Your task to perform on an android device: star an email in the gmail app Image 0: 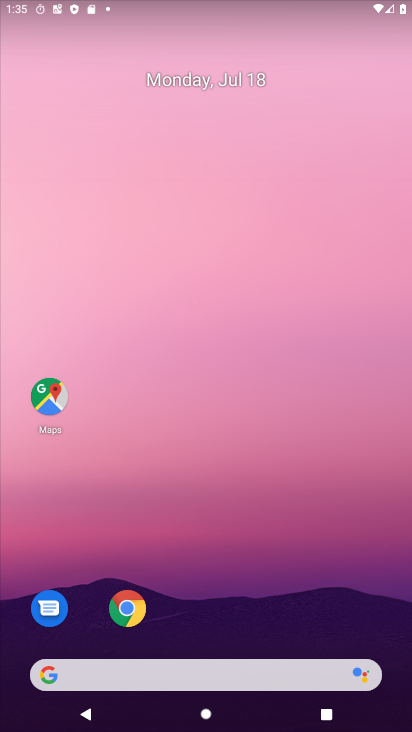
Step 0: drag from (240, 594) to (228, 91)
Your task to perform on an android device: star an email in the gmail app Image 1: 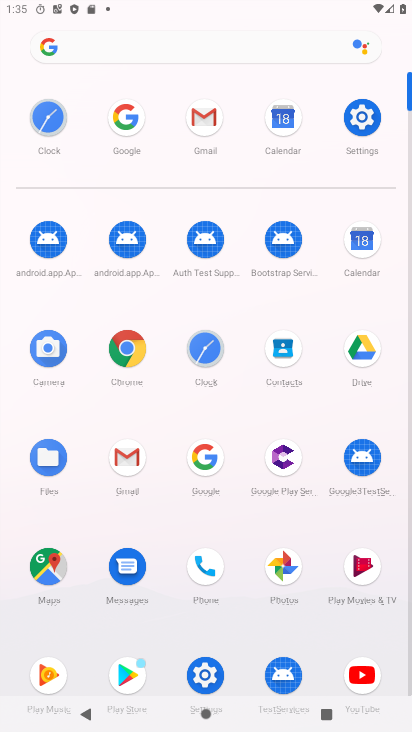
Step 1: click (126, 458)
Your task to perform on an android device: star an email in the gmail app Image 2: 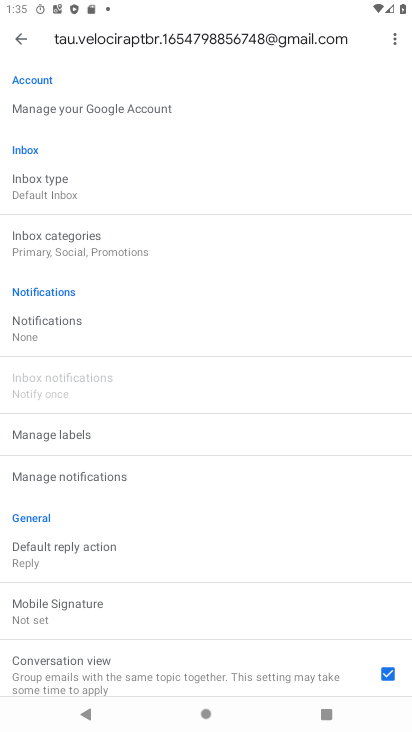
Step 2: click (26, 34)
Your task to perform on an android device: star an email in the gmail app Image 3: 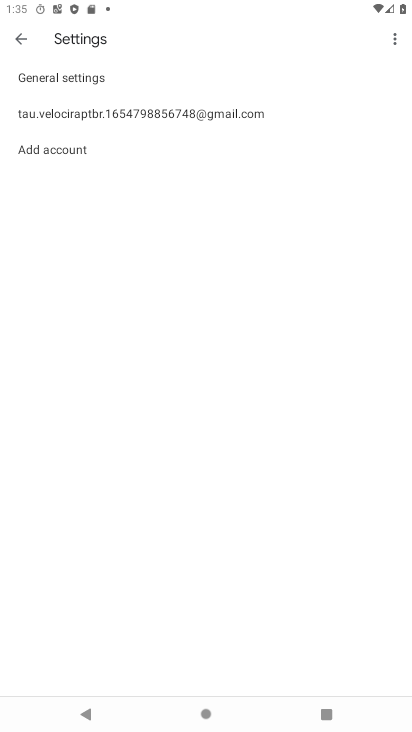
Step 3: click (27, 41)
Your task to perform on an android device: star an email in the gmail app Image 4: 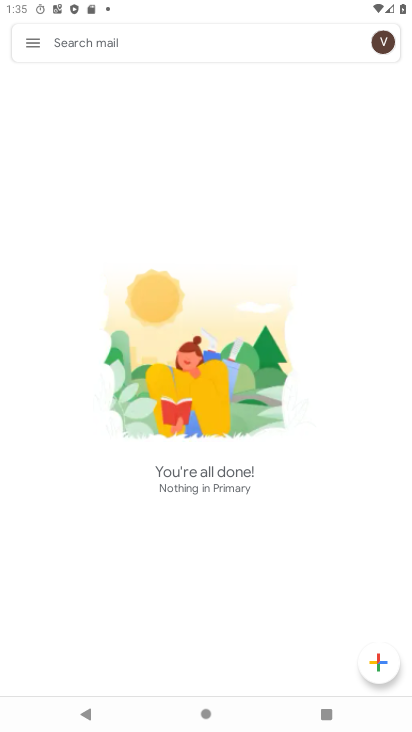
Step 4: task complete